Your task to perform on an android device: empty trash in the gmail app Image 0: 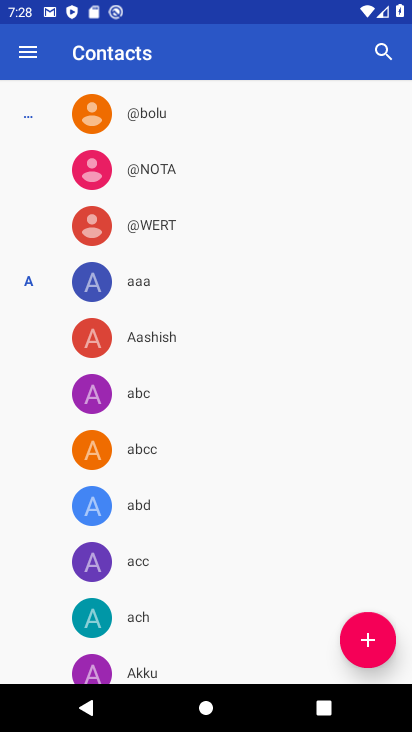
Step 0: press home button
Your task to perform on an android device: empty trash in the gmail app Image 1: 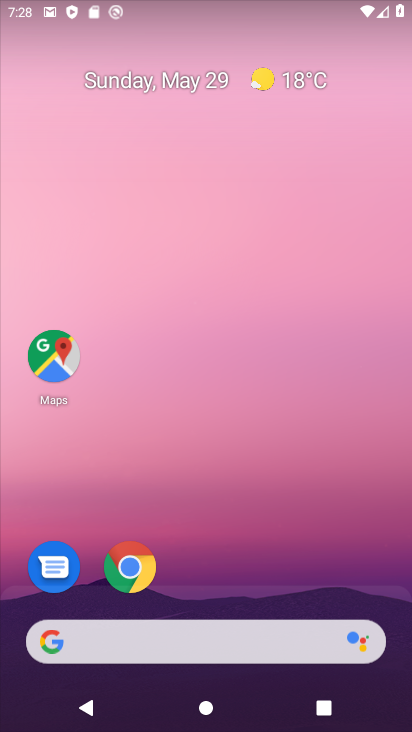
Step 1: drag from (245, 503) to (224, 91)
Your task to perform on an android device: empty trash in the gmail app Image 2: 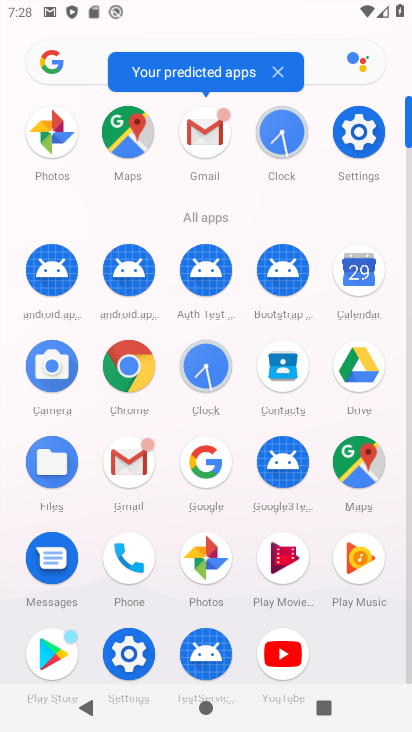
Step 2: click (204, 129)
Your task to perform on an android device: empty trash in the gmail app Image 3: 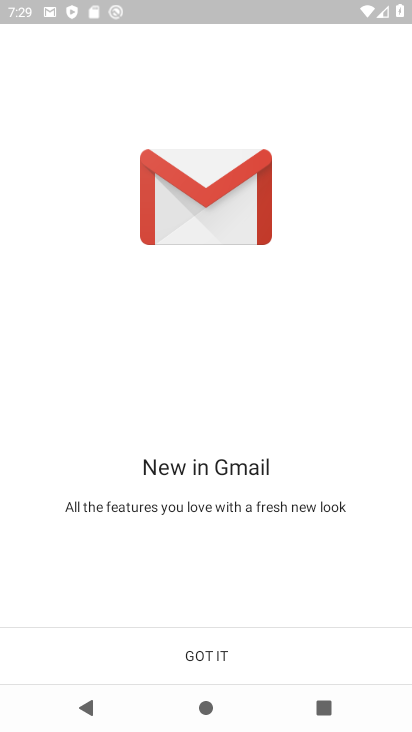
Step 3: click (201, 650)
Your task to perform on an android device: empty trash in the gmail app Image 4: 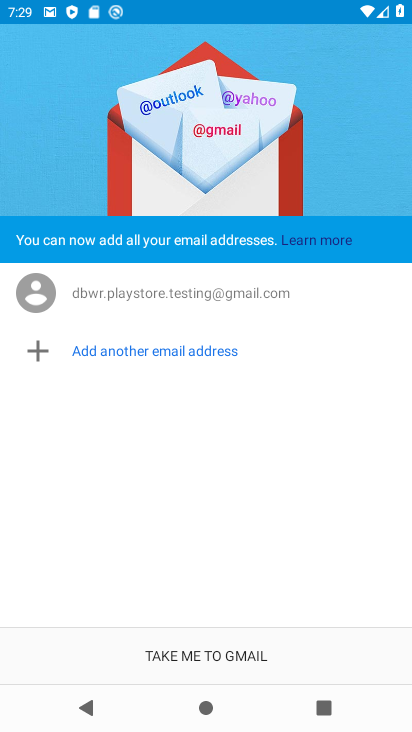
Step 4: click (201, 650)
Your task to perform on an android device: empty trash in the gmail app Image 5: 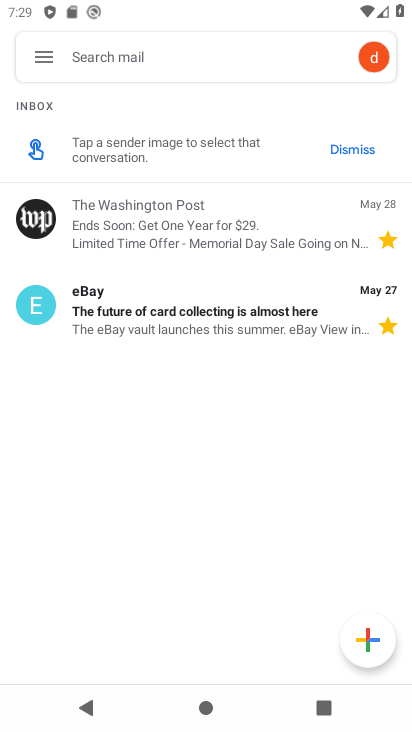
Step 5: click (45, 59)
Your task to perform on an android device: empty trash in the gmail app Image 6: 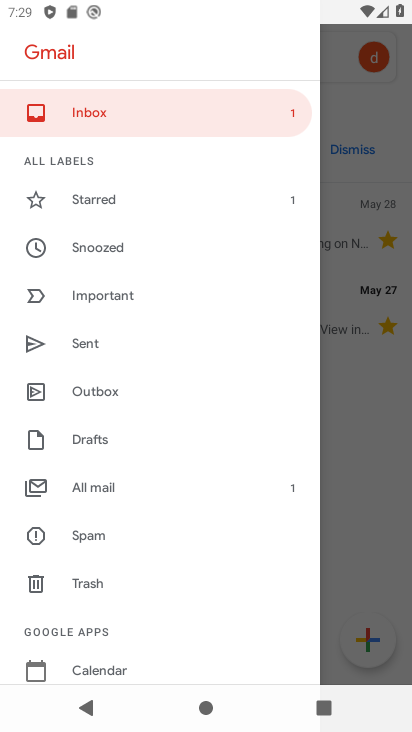
Step 6: drag from (108, 459) to (132, 395)
Your task to perform on an android device: empty trash in the gmail app Image 7: 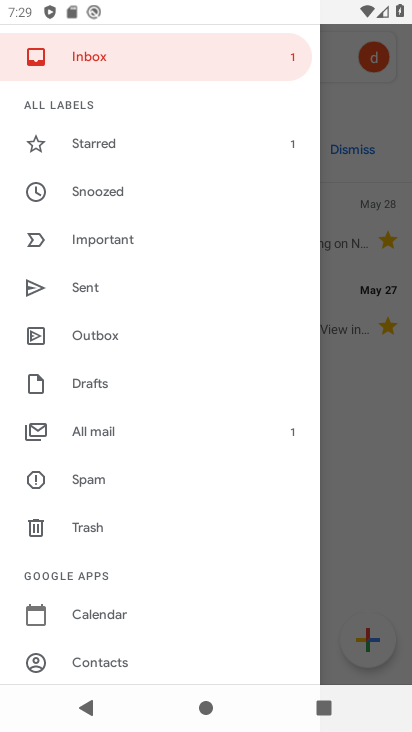
Step 7: click (101, 532)
Your task to perform on an android device: empty trash in the gmail app Image 8: 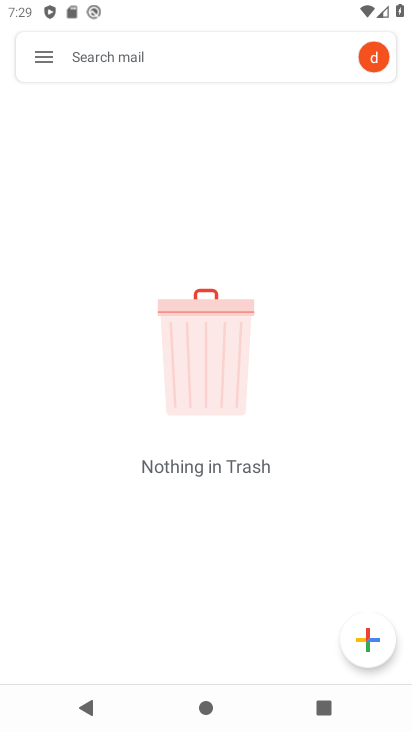
Step 8: task complete